Your task to perform on an android device: Go to internet settings Image 0: 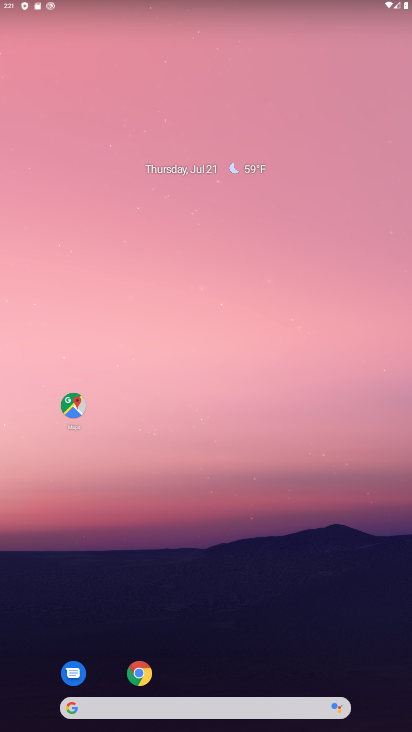
Step 0: drag from (377, 667) to (343, 69)
Your task to perform on an android device: Go to internet settings Image 1: 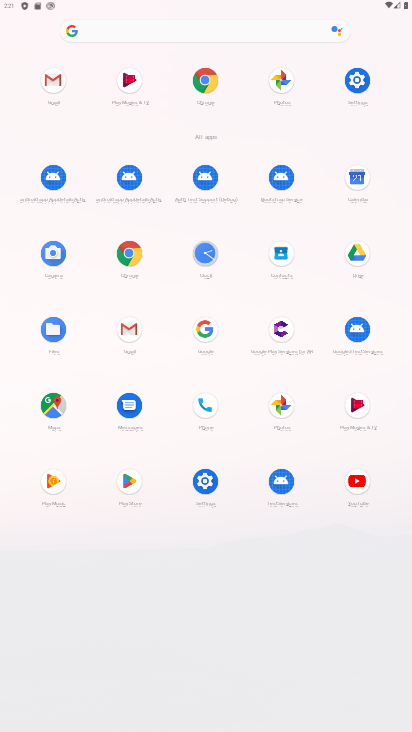
Step 1: click (205, 482)
Your task to perform on an android device: Go to internet settings Image 2: 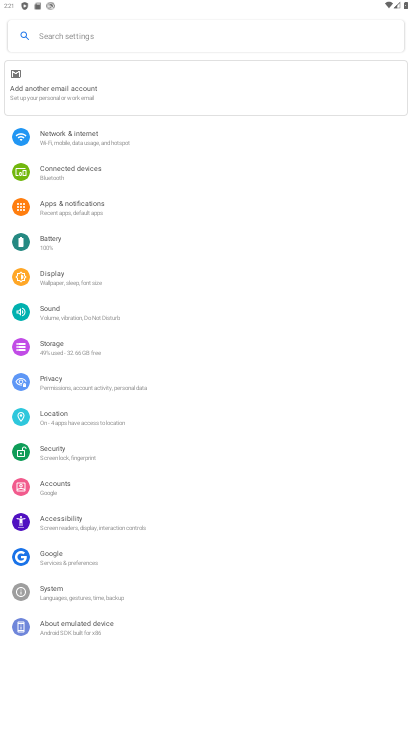
Step 2: click (56, 134)
Your task to perform on an android device: Go to internet settings Image 3: 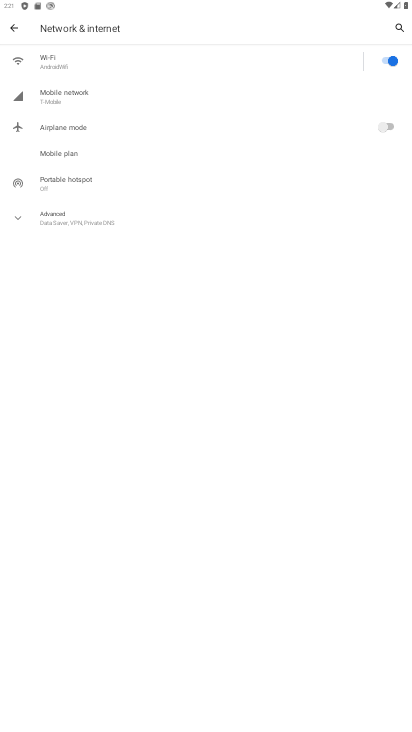
Step 3: click (56, 88)
Your task to perform on an android device: Go to internet settings Image 4: 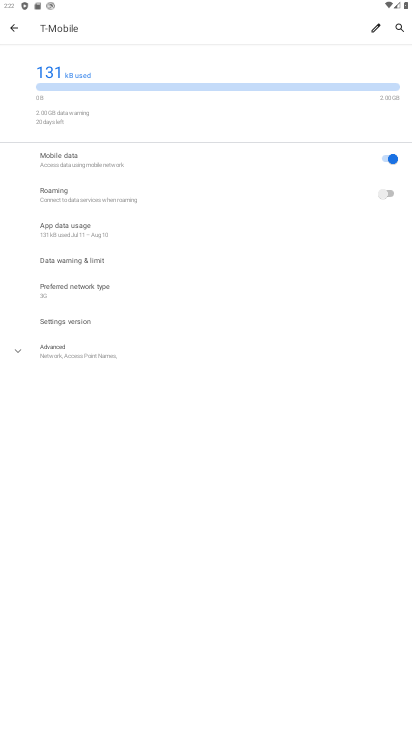
Step 4: click (14, 349)
Your task to perform on an android device: Go to internet settings Image 5: 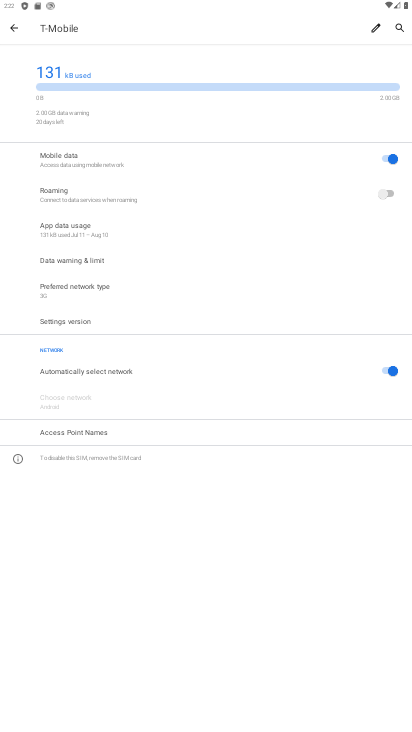
Step 5: task complete